Your task to perform on an android device: Open Google Chrome and click the shortcut for Amazon.com Image 0: 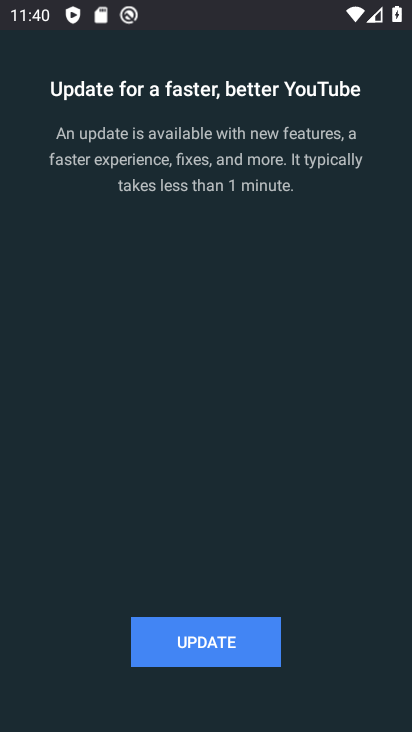
Step 0: press back button
Your task to perform on an android device: Open Google Chrome and click the shortcut for Amazon.com Image 1: 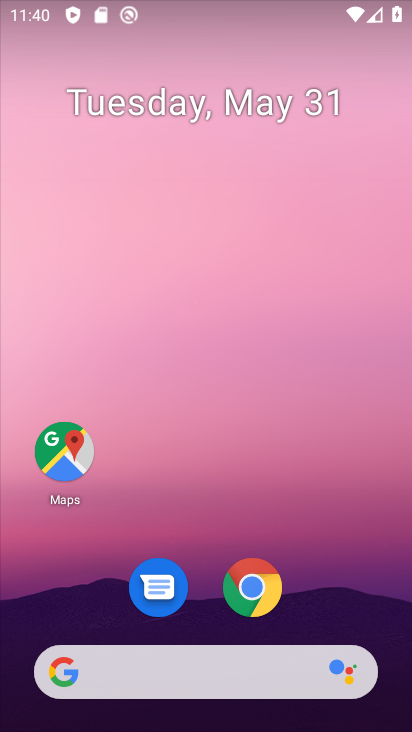
Step 1: click (261, 563)
Your task to perform on an android device: Open Google Chrome and click the shortcut for Amazon.com Image 2: 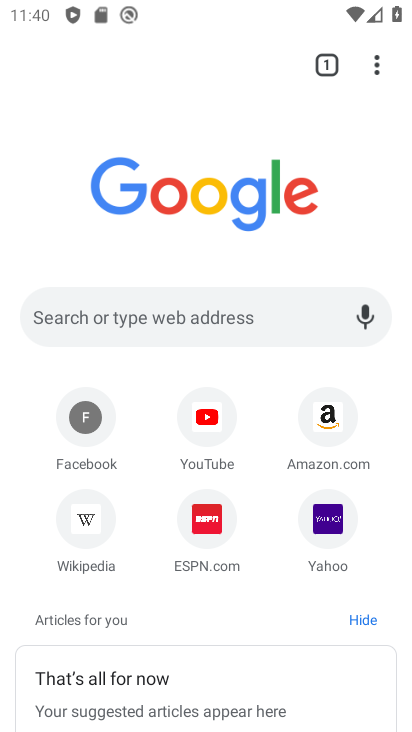
Step 2: click (317, 437)
Your task to perform on an android device: Open Google Chrome and click the shortcut for Amazon.com Image 3: 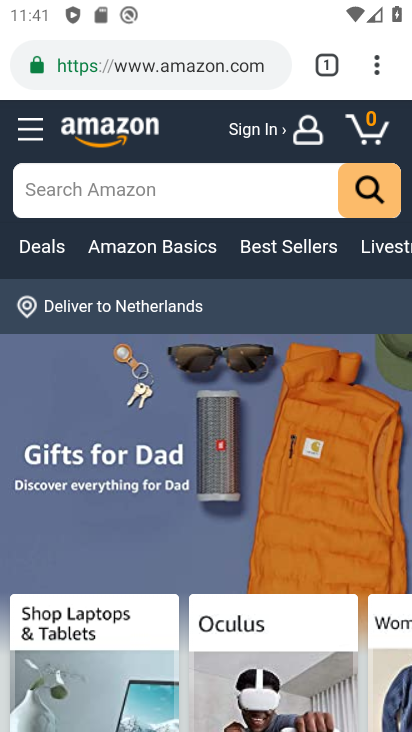
Step 3: task complete